Your task to perform on an android device: turn on notifications settings in the gmail app Image 0: 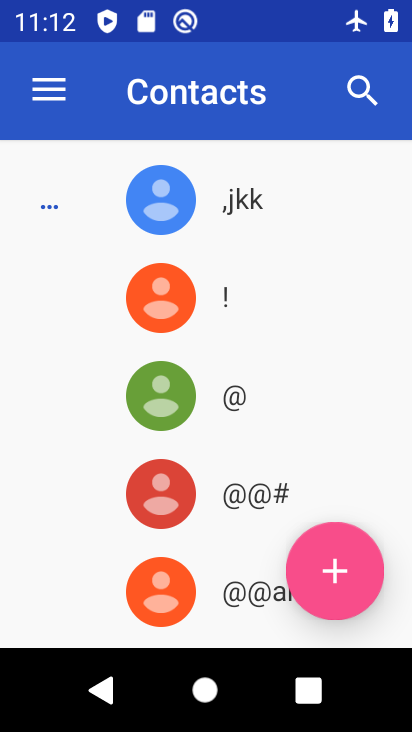
Step 0: press home button
Your task to perform on an android device: turn on notifications settings in the gmail app Image 1: 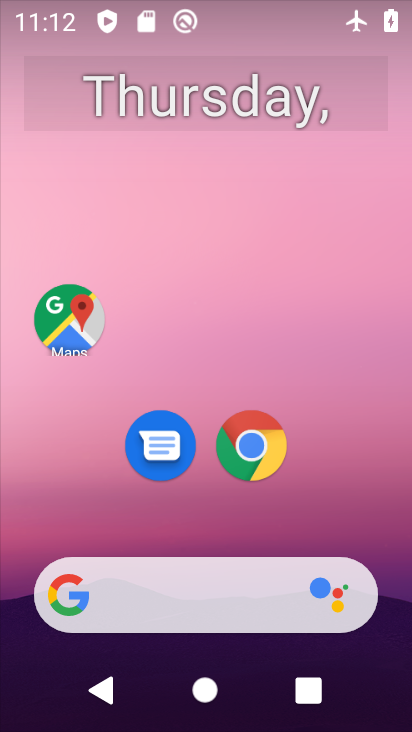
Step 1: drag from (204, 525) to (207, 123)
Your task to perform on an android device: turn on notifications settings in the gmail app Image 2: 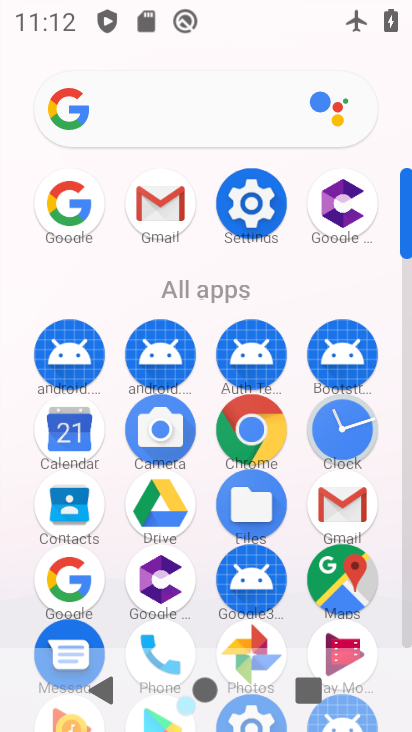
Step 2: click (172, 213)
Your task to perform on an android device: turn on notifications settings in the gmail app Image 3: 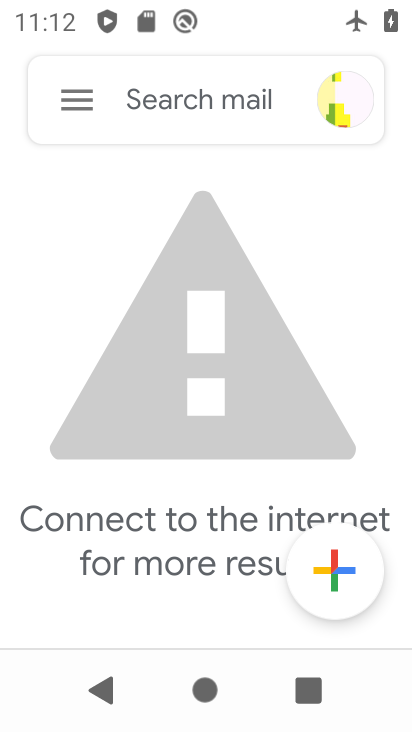
Step 3: click (68, 86)
Your task to perform on an android device: turn on notifications settings in the gmail app Image 4: 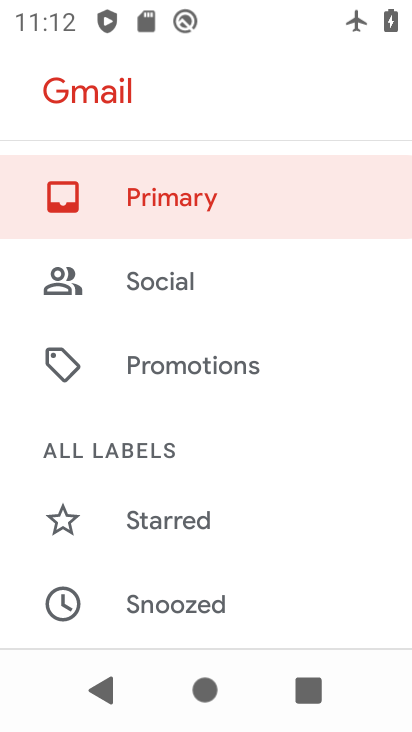
Step 4: drag from (182, 578) to (237, 202)
Your task to perform on an android device: turn on notifications settings in the gmail app Image 5: 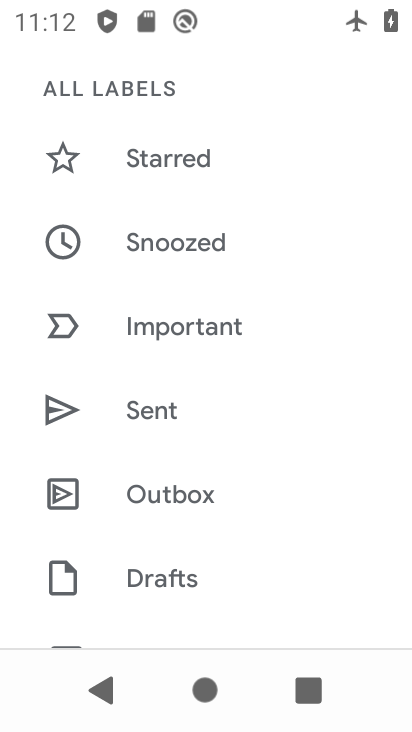
Step 5: drag from (202, 594) to (260, 279)
Your task to perform on an android device: turn on notifications settings in the gmail app Image 6: 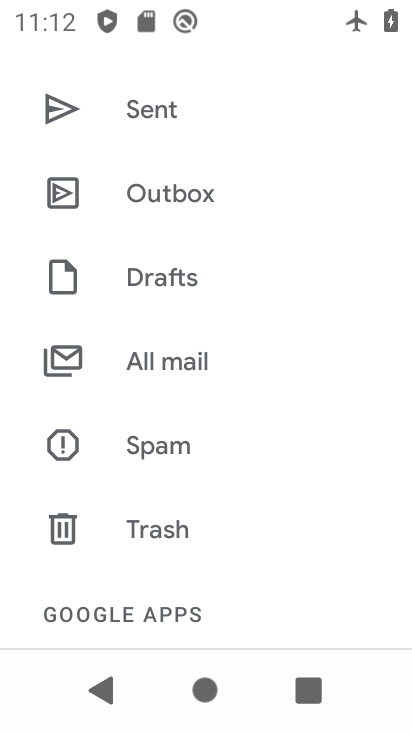
Step 6: drag from (197, 583) to (277, 234)
Your task to perform on an android device: turn on notifications settings in the gmail app Image 7: 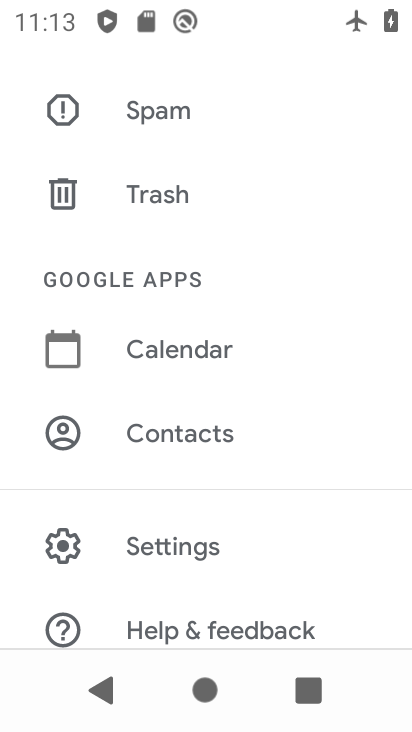
Step 7: click (168, 541)
Your task to perform on an android device: turn on notifications settings in the gmail app Image 8: 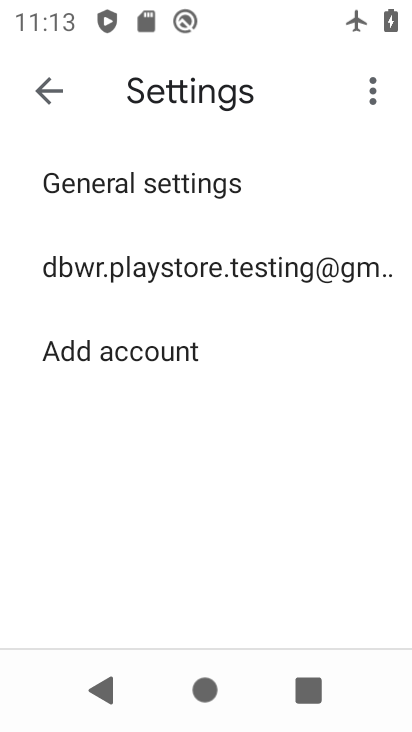
Step 8: click (164, 268)
Your task to perform on an android device: turn on notifications settings in the gmail app Image 9: 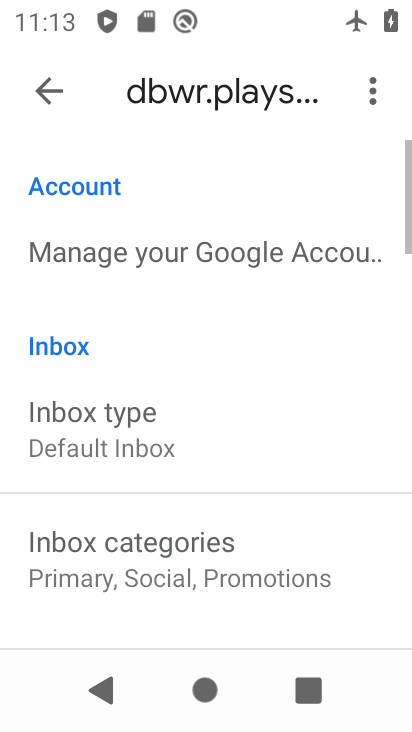
Step 9: drag from (200, 564) to (216, 273)
Your task to perform on an android device: turn on notifications settings in the gmail app Image 10: 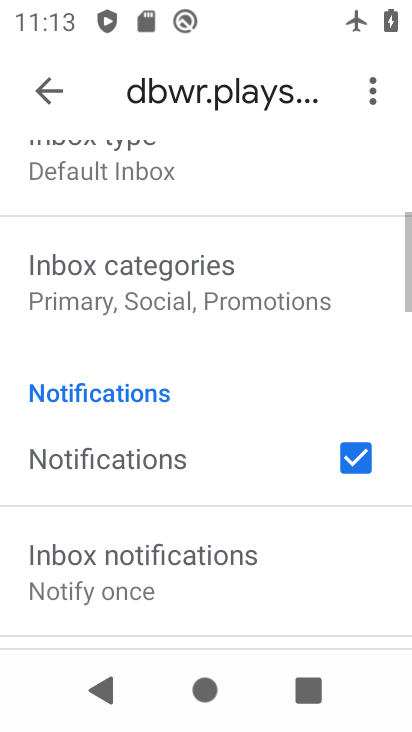
Step 10: drag from (191, 575) to (239, 247)
Your task to perform on an android device: turn on notifications settings in the gmail app Image 11: 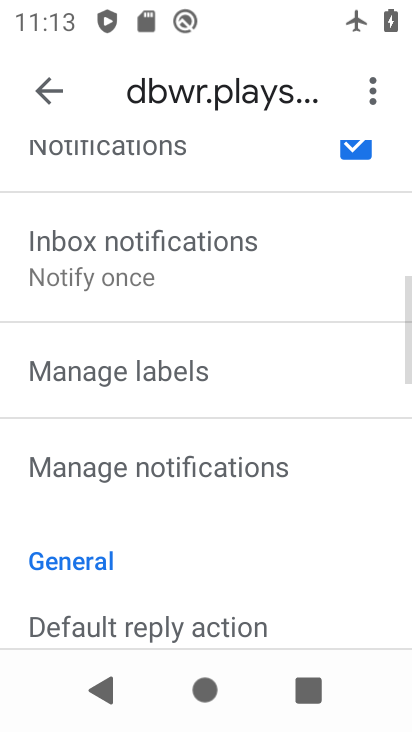
Step 11: click (166, 467)
Your task to perform on an android device: turn on notifications settings in the gmail app Image 12: 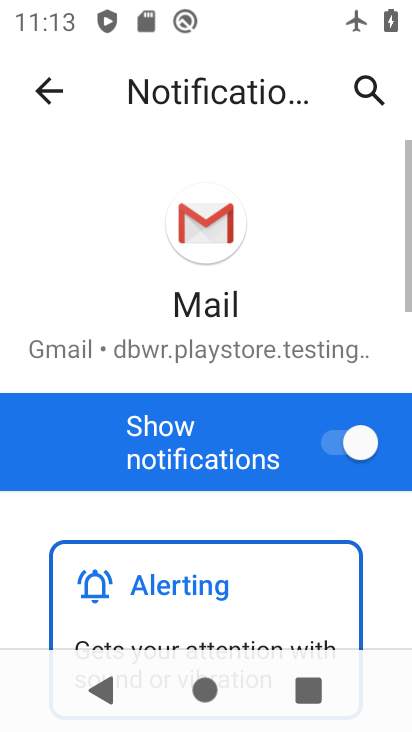
Step 12: task complete